Your task to perform on an android device: open the mobile data screen to see how much data has been used Image 0: 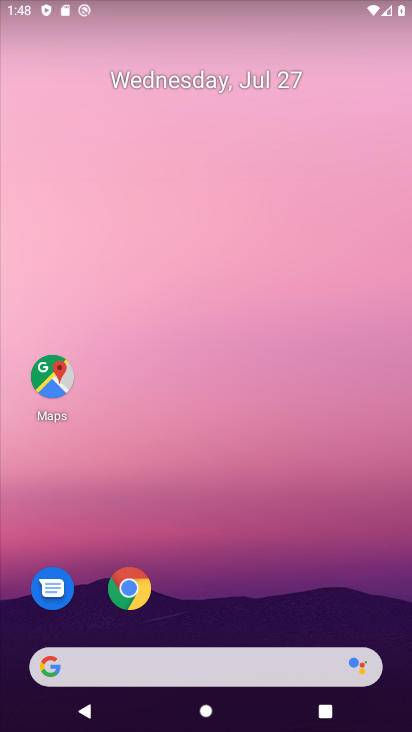
Step 0: drag from (222, 324) to (195, 3)
Your task to perform on an android device: open the mobile data screen to see how much data has been used Image 1: 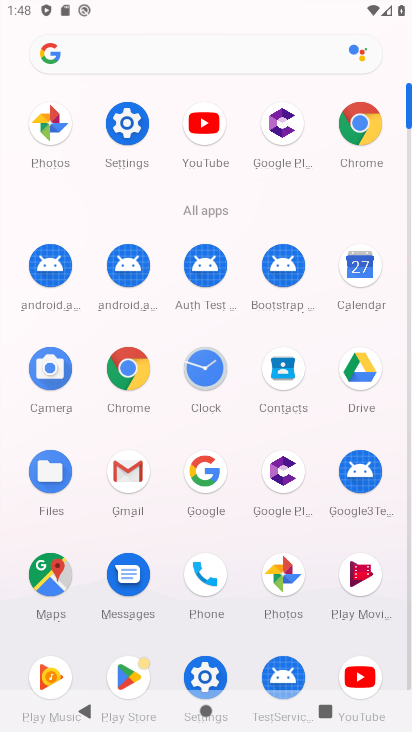
Step 1: click (126, 126)
Your task to perform on an android device: open the mobile data screen to see how much data has been used Image 2: 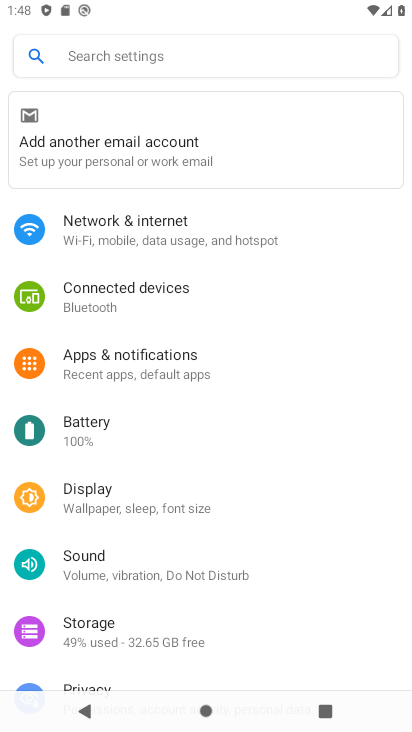
Step 2: click (155, 249)
Your task to perform on an android device: open the mobile data screen to see how much data has been used Image 3: 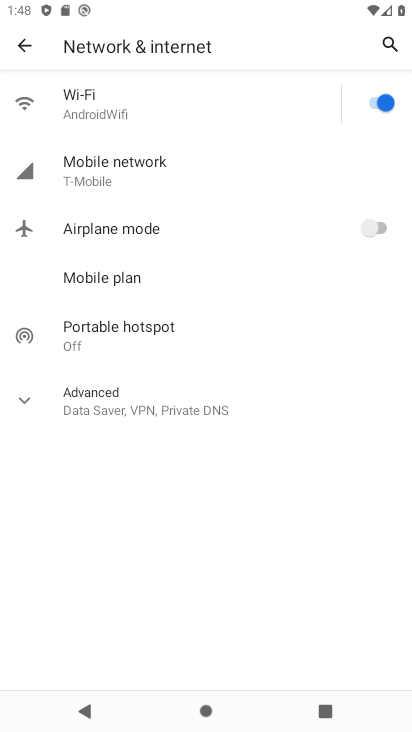
Step 3: click (152, 185)
Your task to perform on an android device: open the mobile data screen to see how much data has been used Image 4: 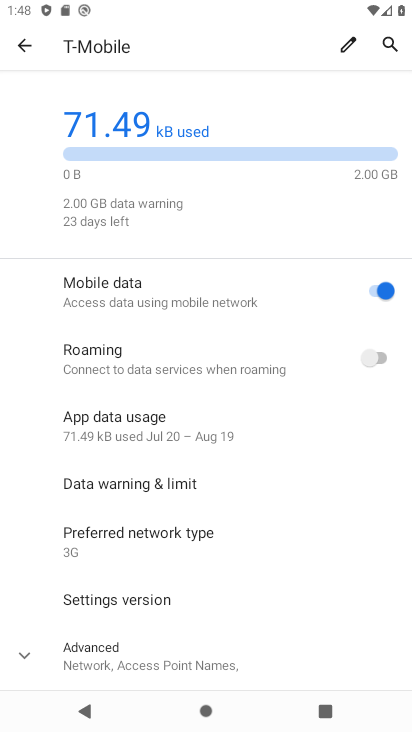
Step 4: click (182, 430)
Your task to perform on an android device: open the mobile data screen to see how much data has been used Image 5: 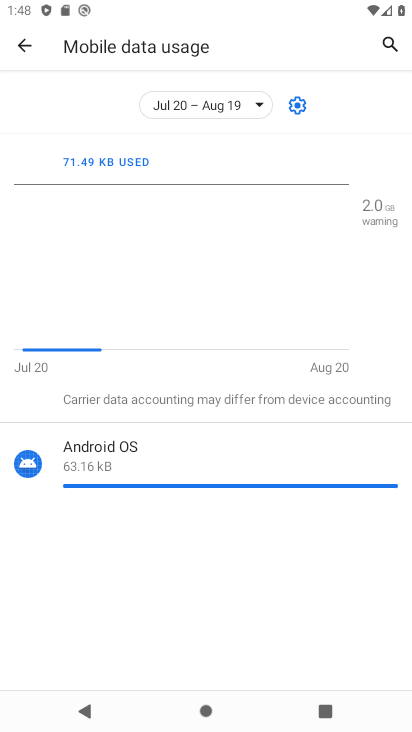
Step 5: task complete